Your task to perform on an android device: turn off wifi Image 0: 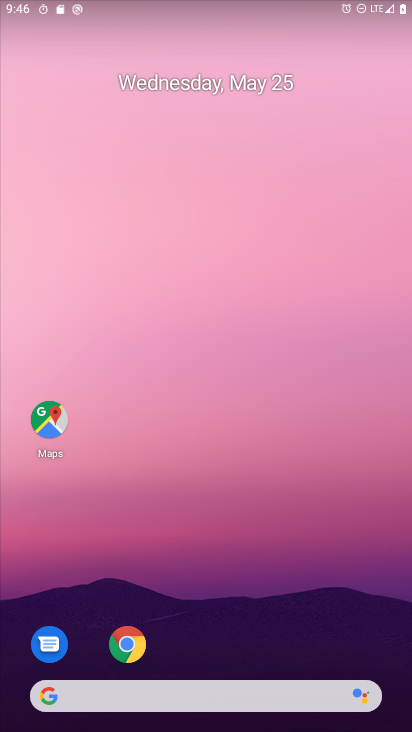
Step 0: drag from (353, 629) to (350, 131)
Your task to perform on an android device: turn off wifi Image 1: 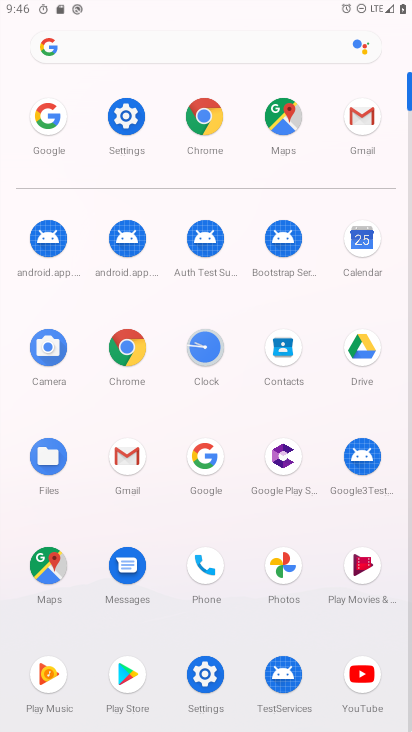
Step 1: task complete